Your task to perform on an android device: check battery use Image 0: 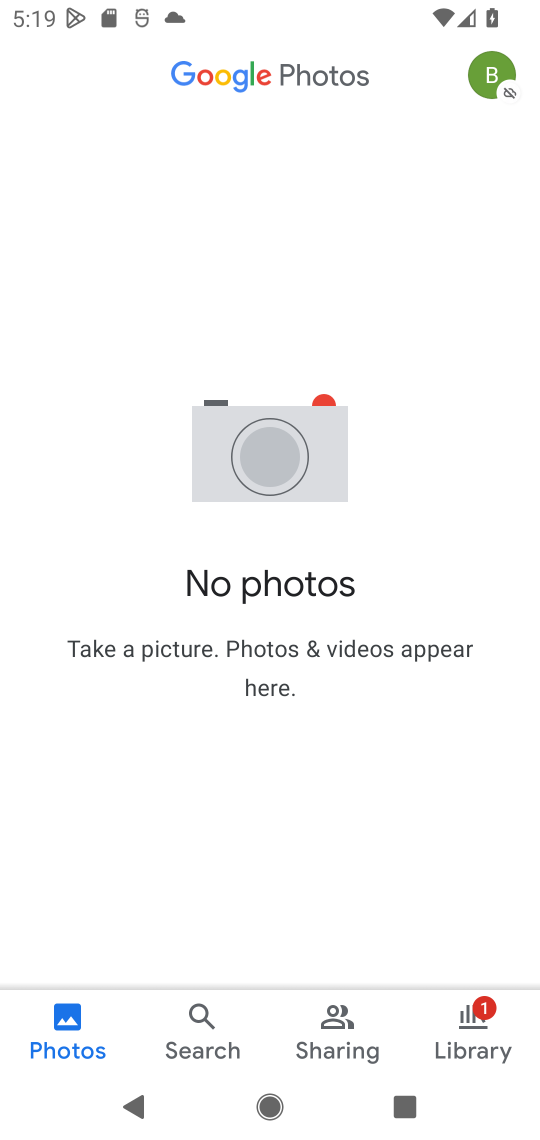
Step 0: press home button
Your task to perform on an android device: check battery use Image 1: 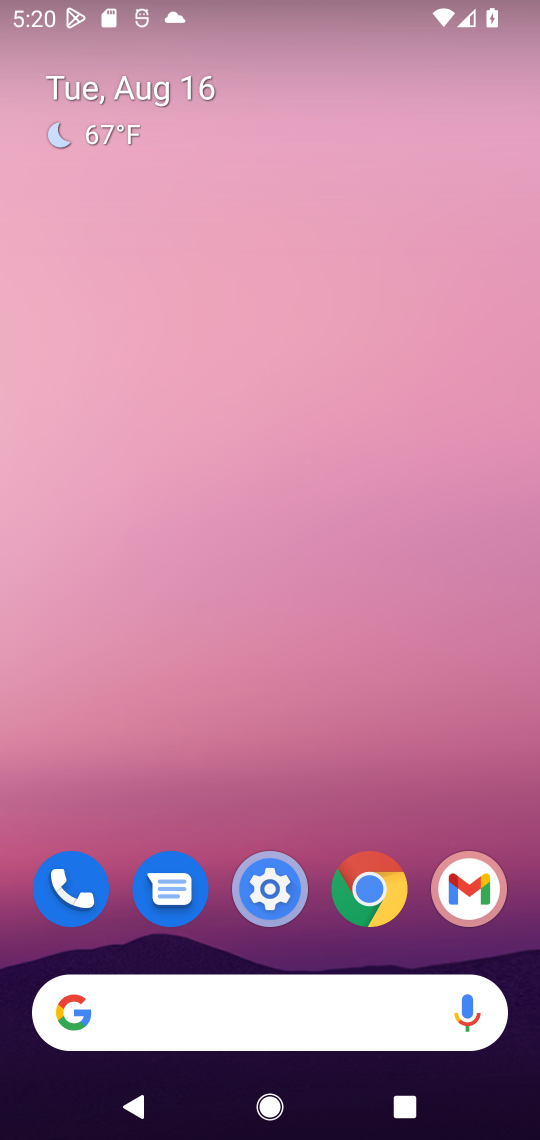
Step 1: drag from (224, 794) to (323, 203)
Your task to perform on an android device: check battery use Image 2: 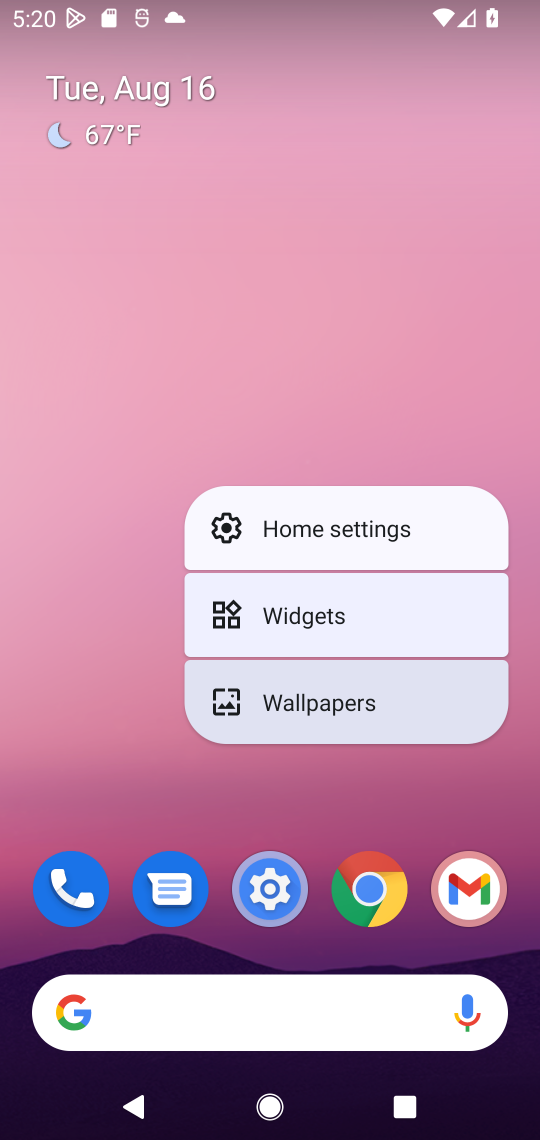
Step 2: click (50, 690)
Your task to perform on an android device: check battery use Image 3: 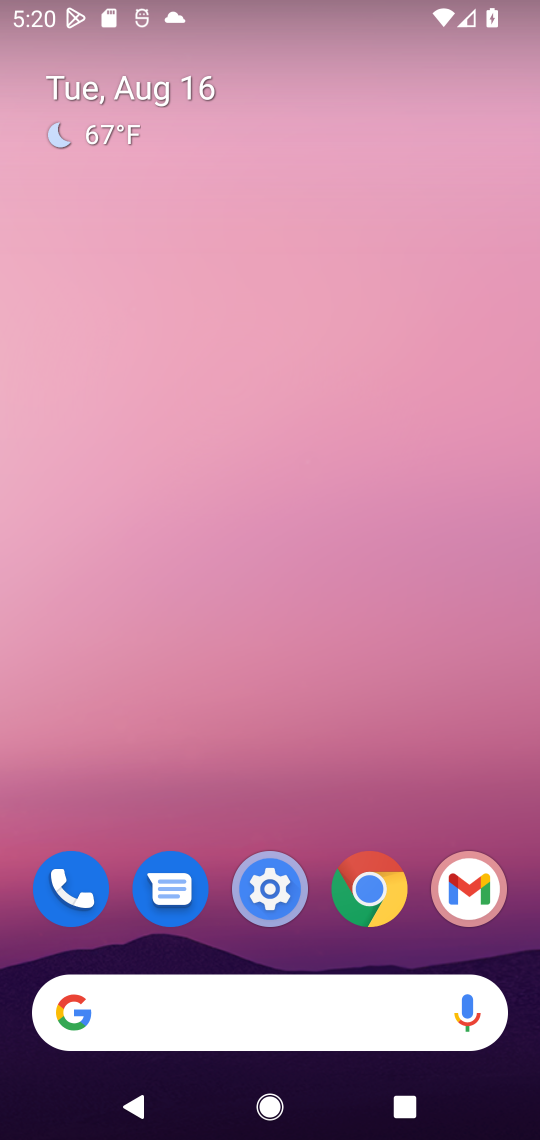
Step 3: drag from (274, 804) to (292, 298)
Your task to perform on an android device: check battery use Image 4: 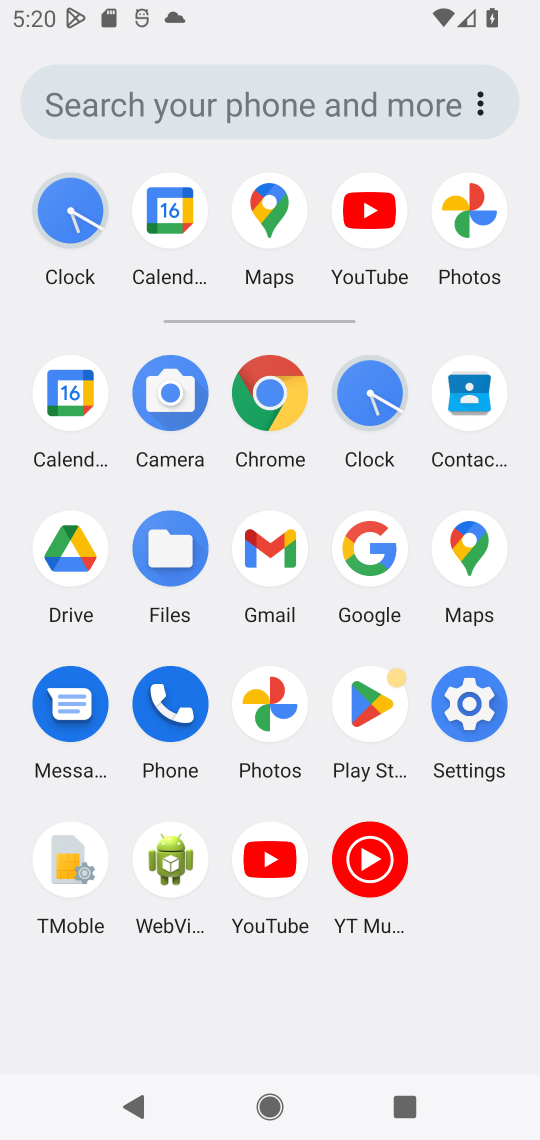
Step 4: click (292, 298)
Your task to perform on an android device: check battery use Image 5: 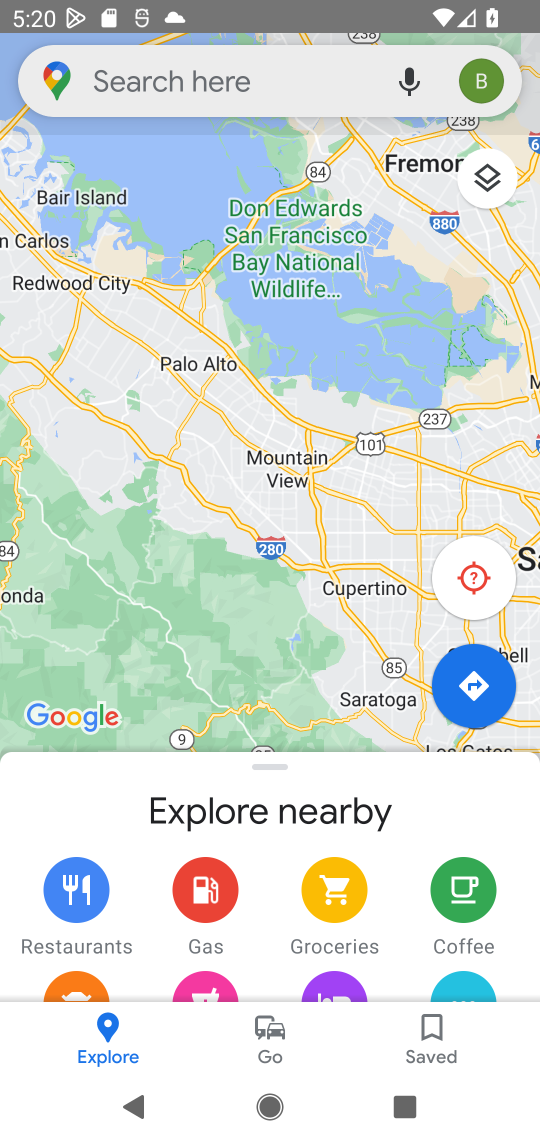
Step 5: click (476, 85)
Your task to perform on an android device: check battery use Image 6: 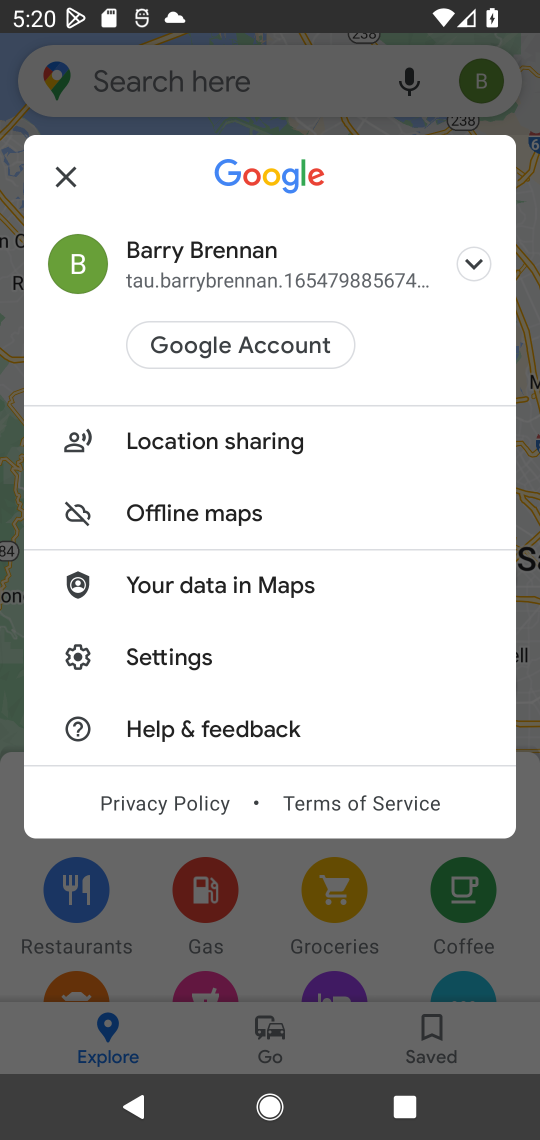
Step 6: click (246, 958)
Your task to perform on an android device: check battery use Image 7: 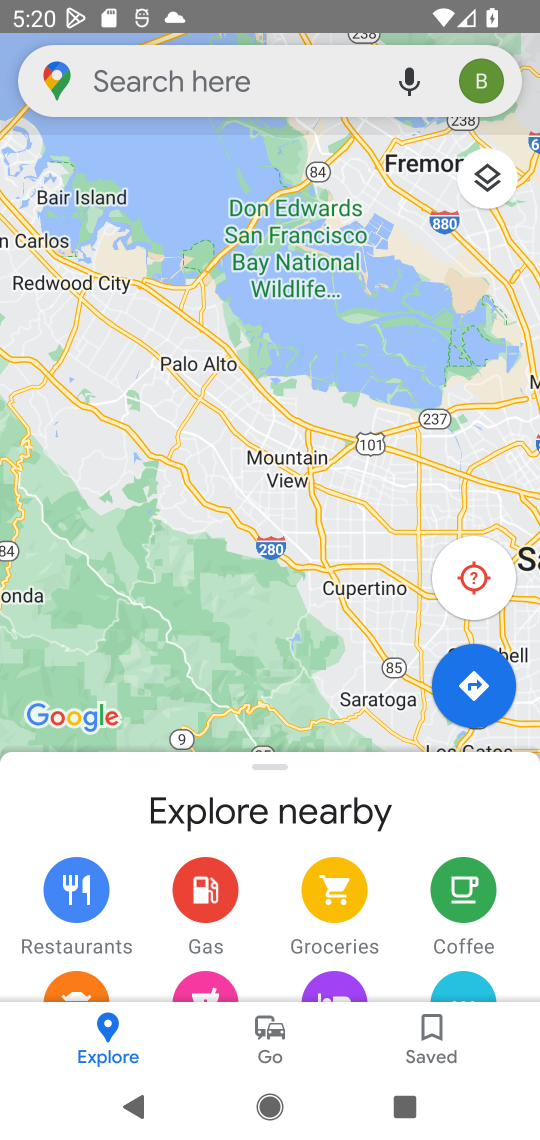
Step 7: press home button
Your task to perform on an android device: check battery use Image 8: 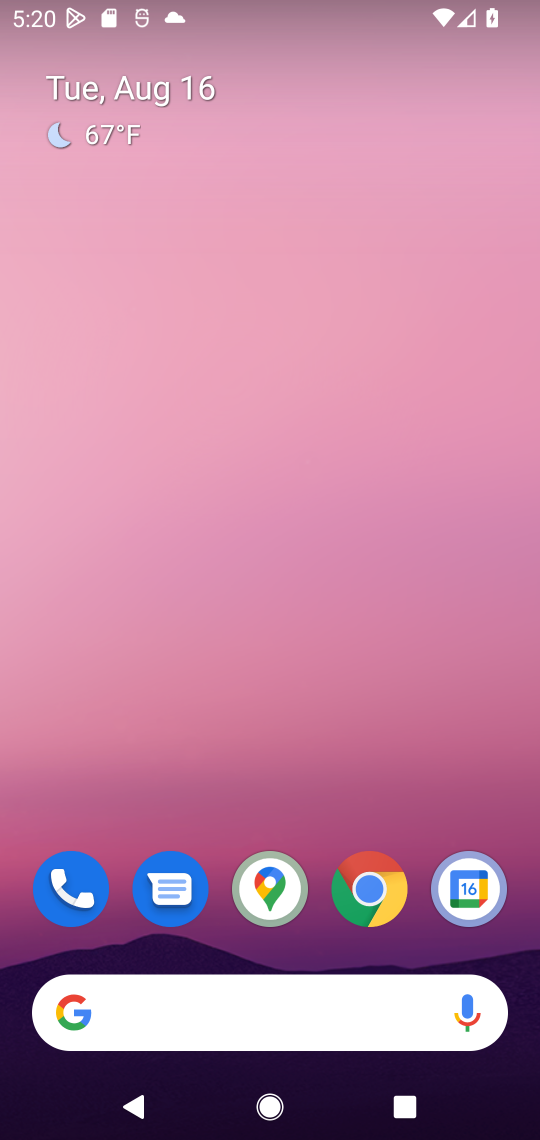
Step 8: drag from (264, 740) to (302, 178)
Your task to perform on an android device: check battery use Image 9: 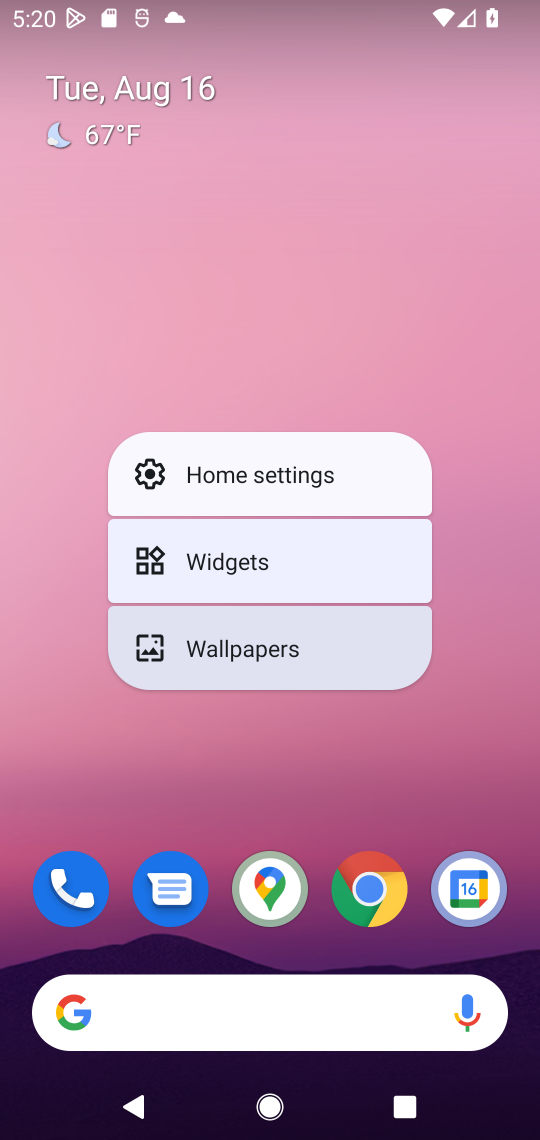
Step 9: click (394, 745)
Your task to perform on an android device: check battery use Image 10: 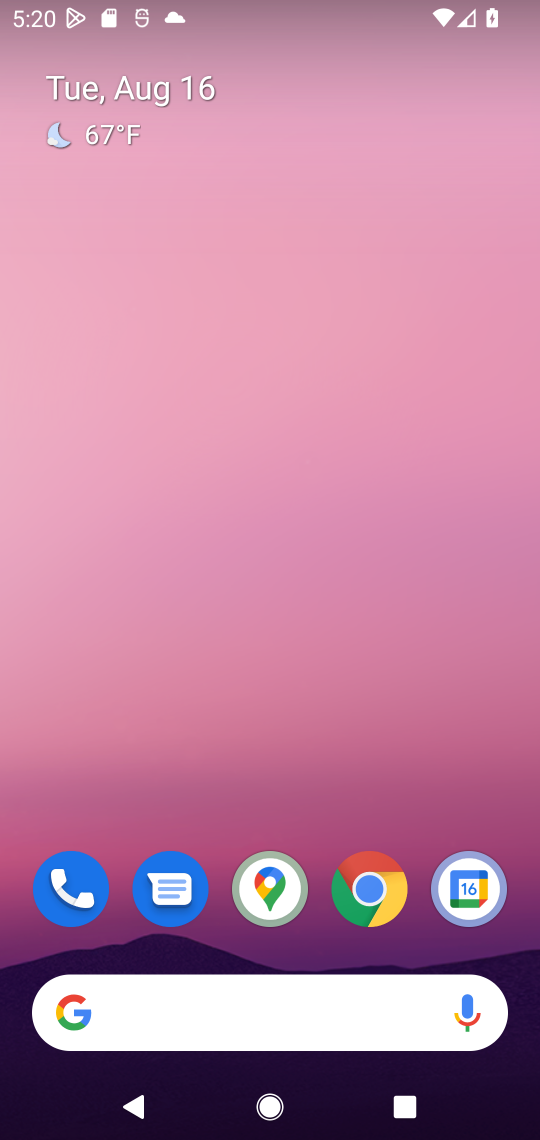
Step 10: drag from (394, 745) to (512, 26)
Your task to perform on an android device: check battery use Image 11: 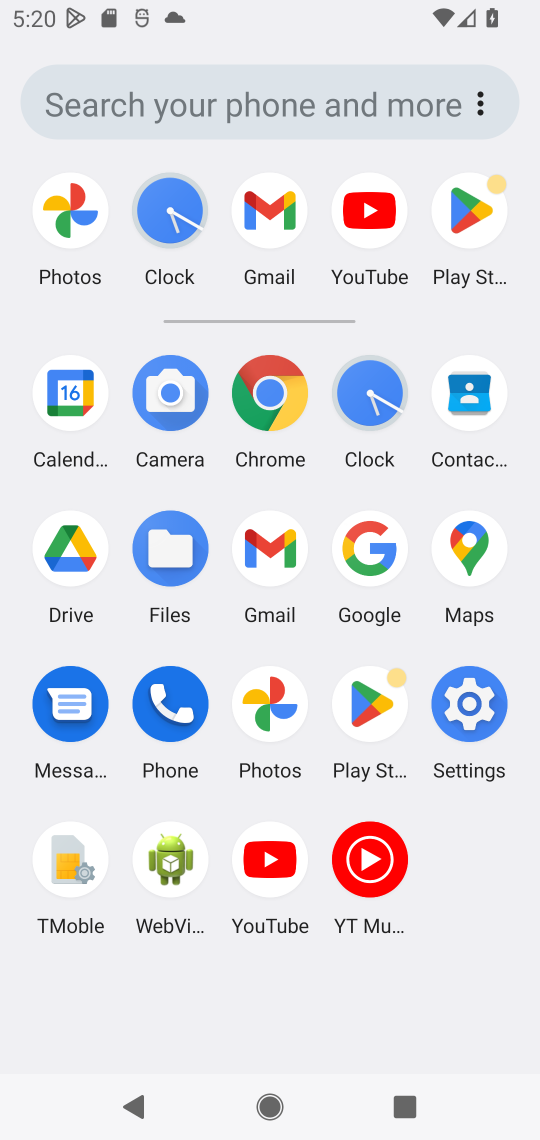
Step 11: click (469, 727)
Your task to perform on an android device: check battery use Image 12: 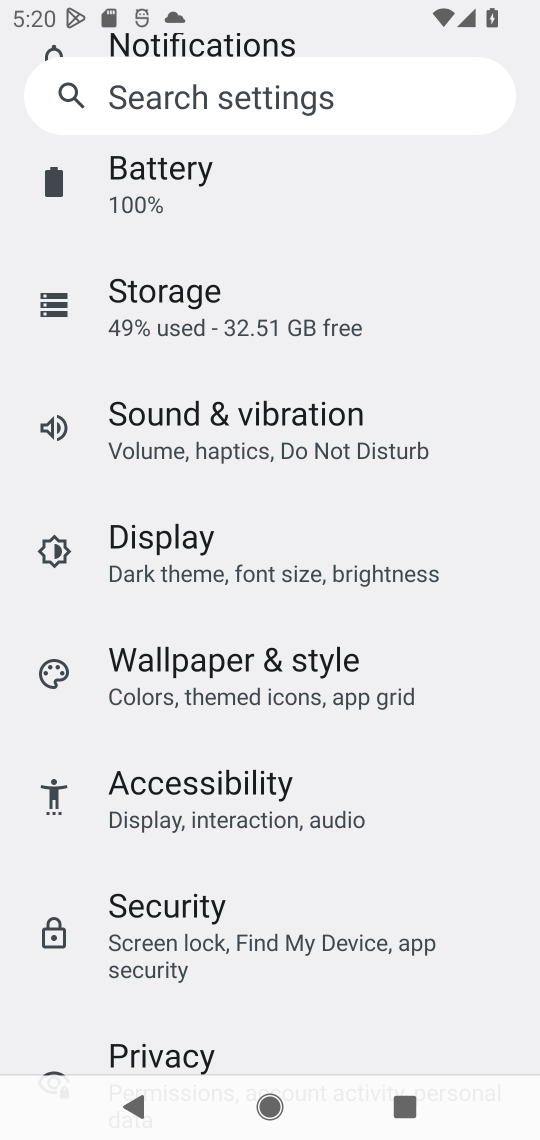
Step 12: drag from (258, 736) to (234, 1082)
Your task to perform on an android device: check battery use Image 13: 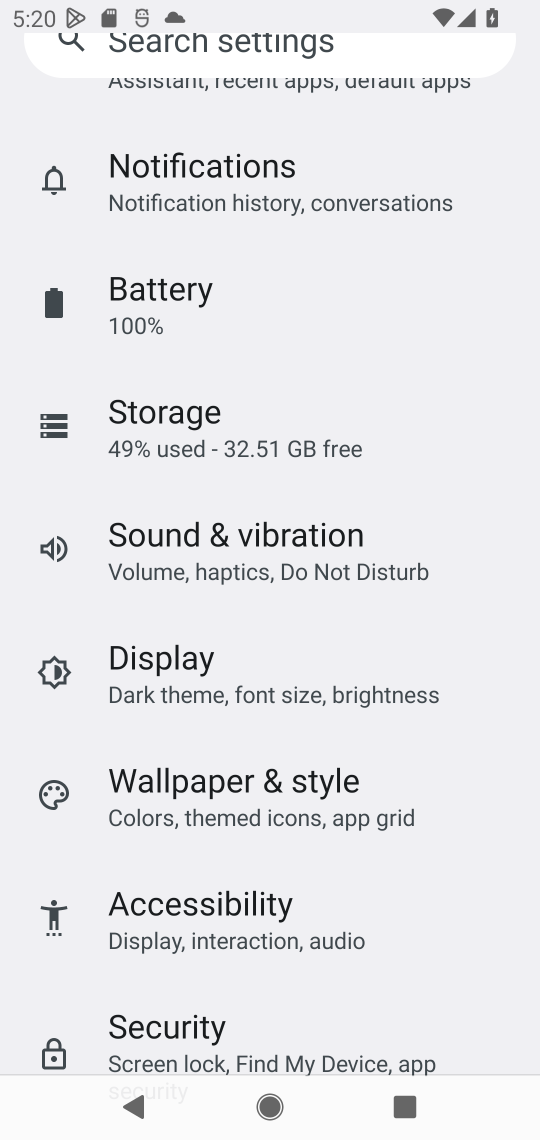
Step 13: drag from (244, 333) to (262, 728)
Your task to perform on an android device: check battery use Image 14: 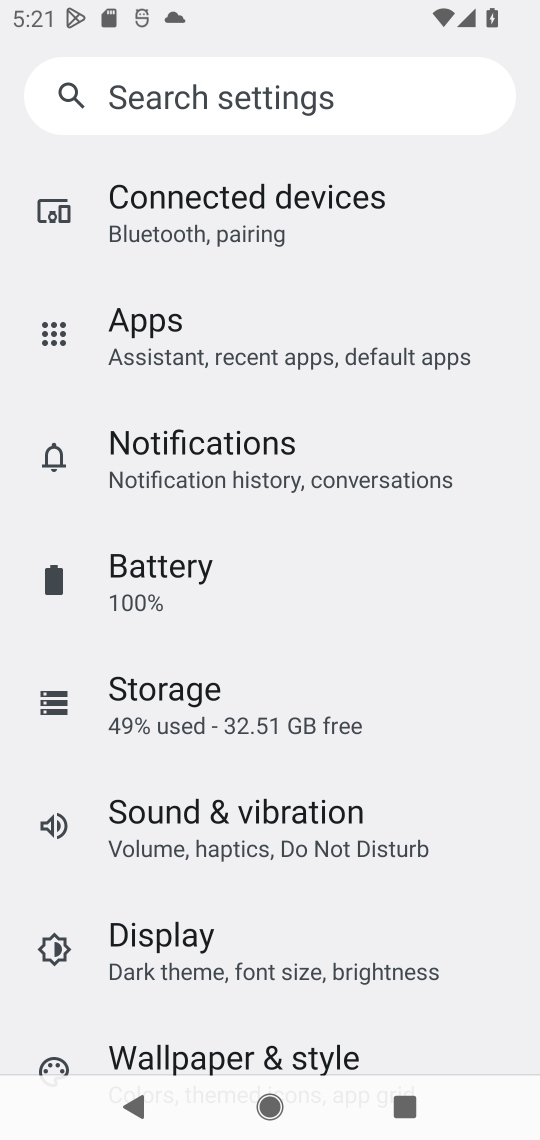
Step 14: click (190, 568)
Your task to perform on an android device: check battery use Image 15: 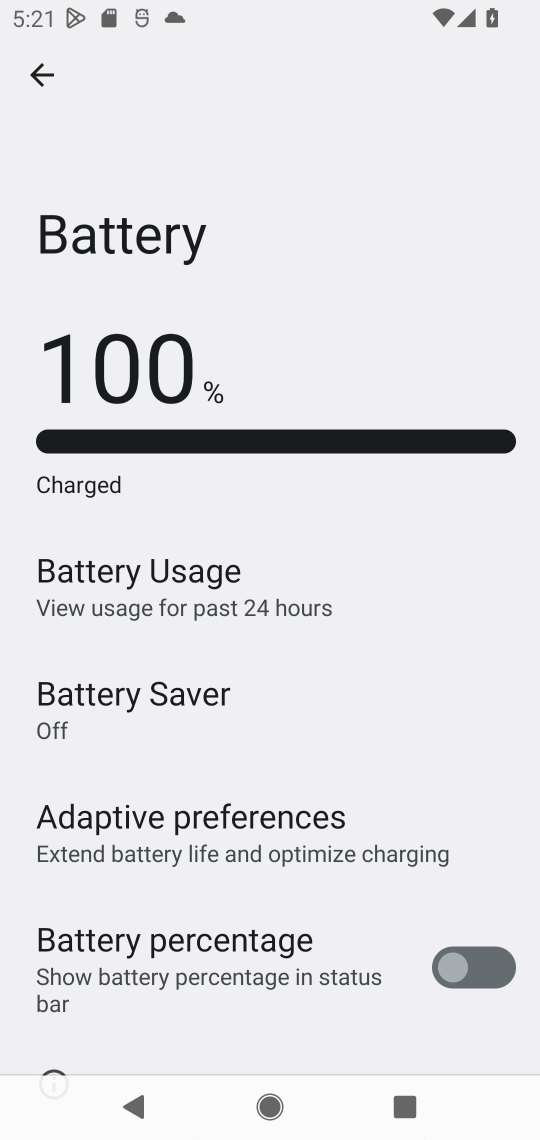
Step 15: task complete